Your task to perform on an android device: Open calendar and show me the first week of next month Image 0: 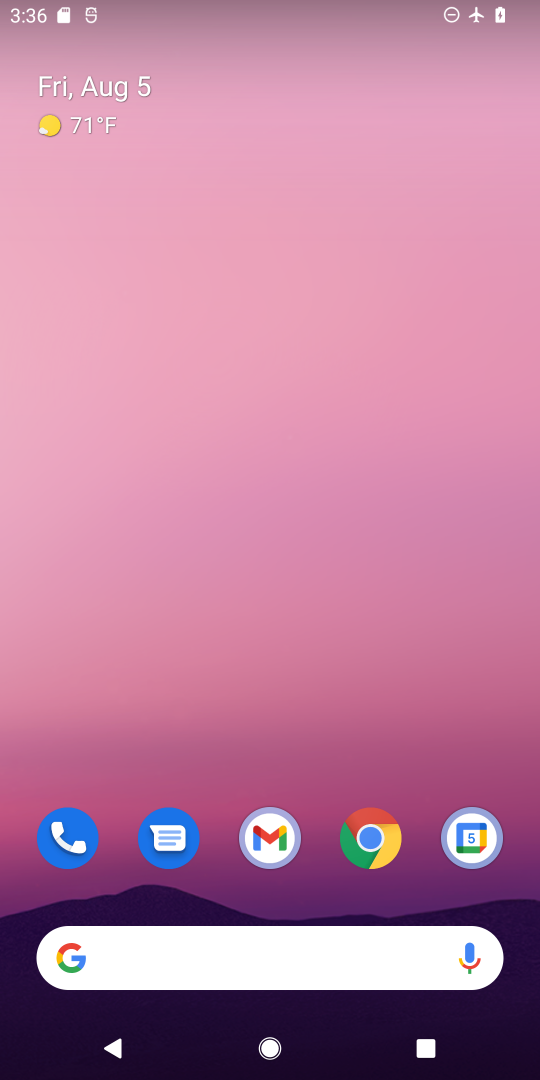
Step 0: click (464, 844)
Your task to perform on an android device: Open calendar and show me the first week of next month Image 1: 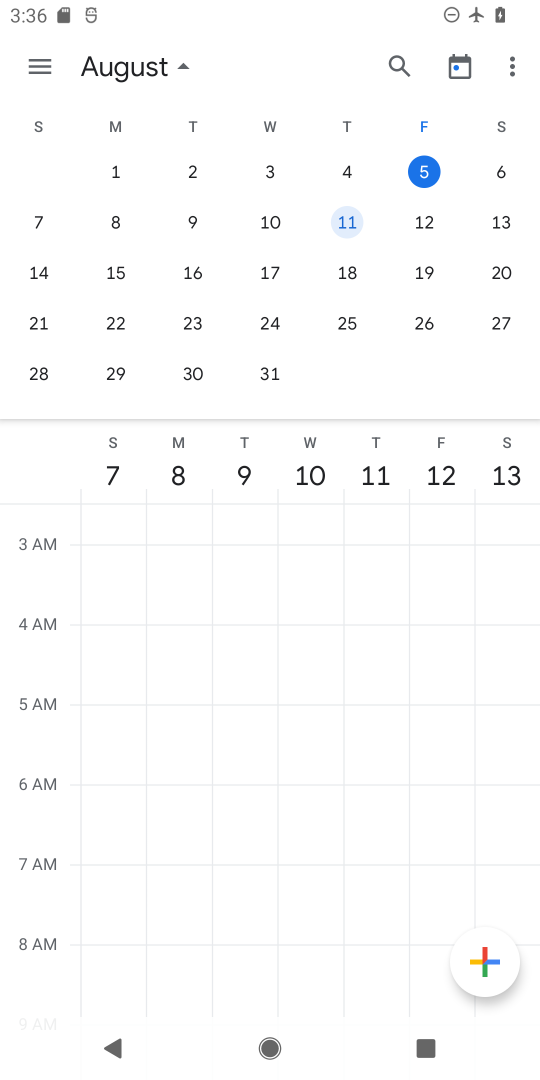
Step 1: click (46, 74)
Your task to perform on an android device: Open calendar and show me the first week of next month Image 2: 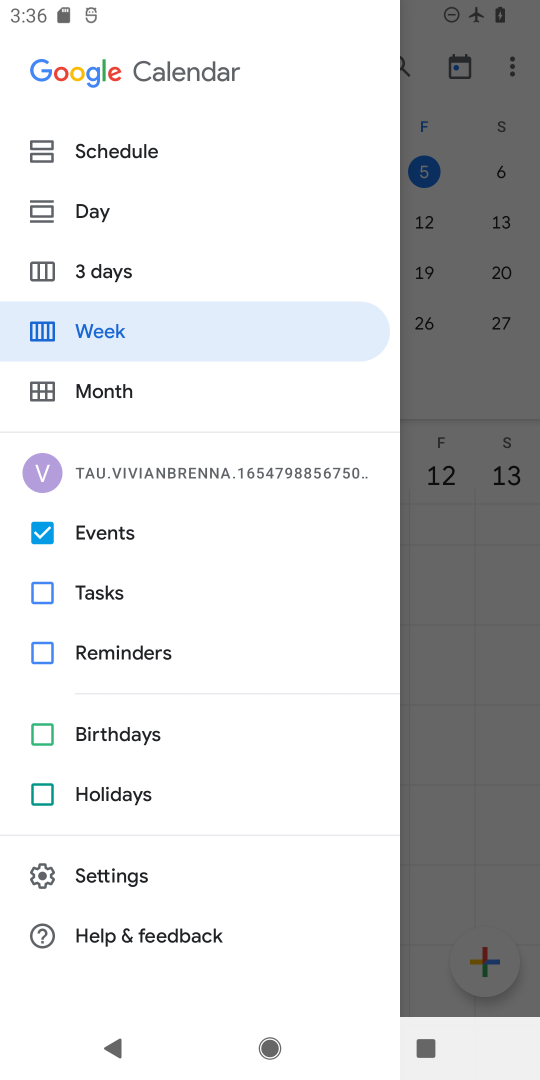
Step 2: click (141, 338)
Your task to perform on an android device: Open calendar and show me the first week of next month Image 3: 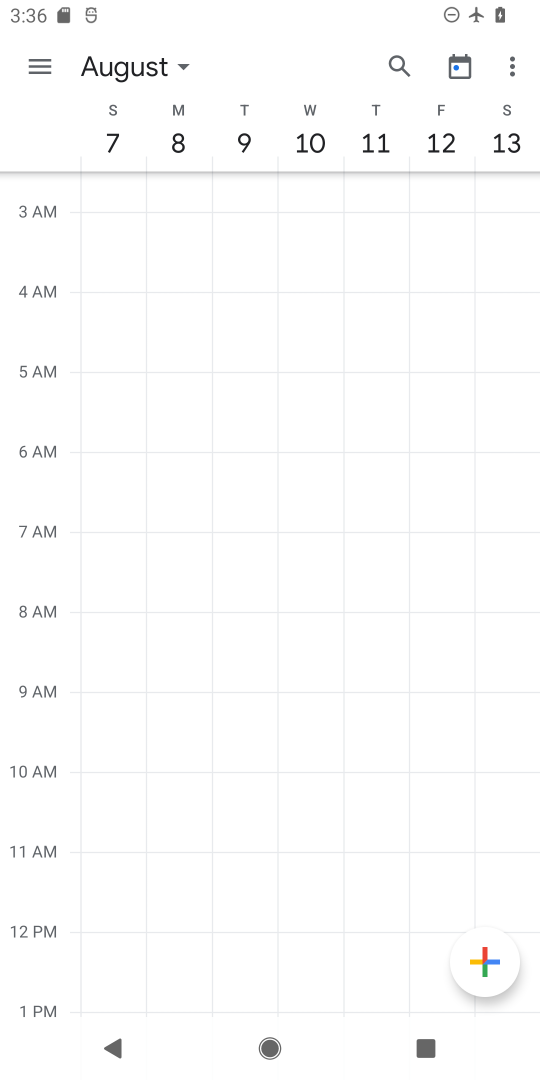
Step 3: click (157, 70)
Your task to perform on an android device: Open calendar and show me the first week of next month Image 4: 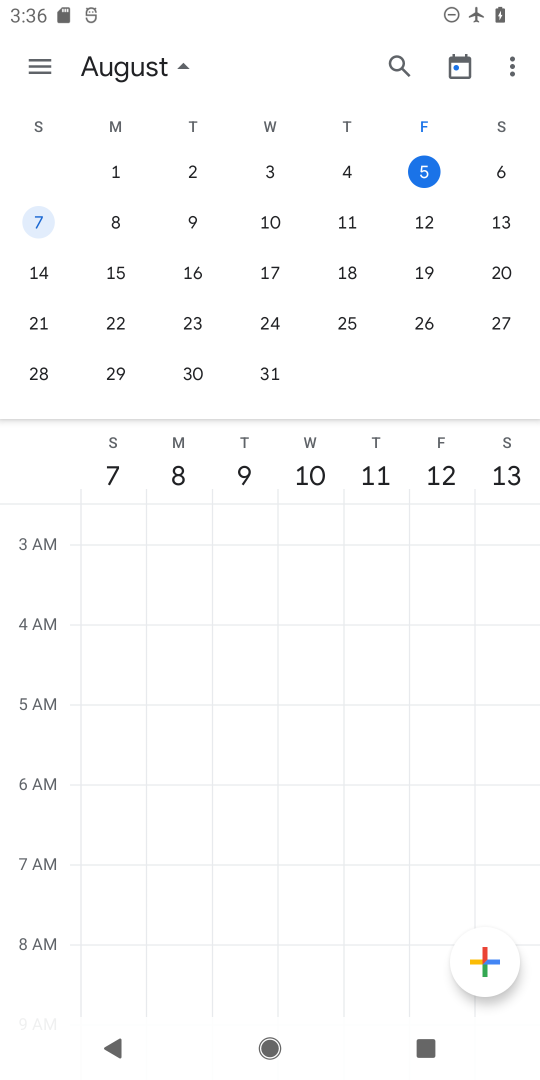
Step 4: drag from (530, 297) to (43, 308)
Your task to perform on an android device: Open calendar and show me the first week of next month Image 5: 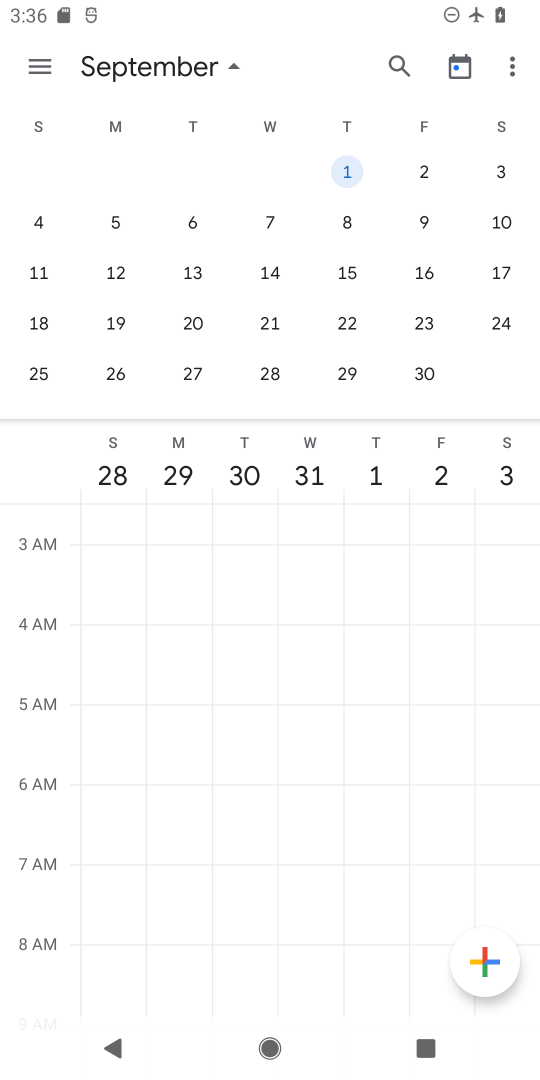
Step 5: click (257, 210)
Your task to perform on an android device: Open calendar and show me the first week of next month Image 6: 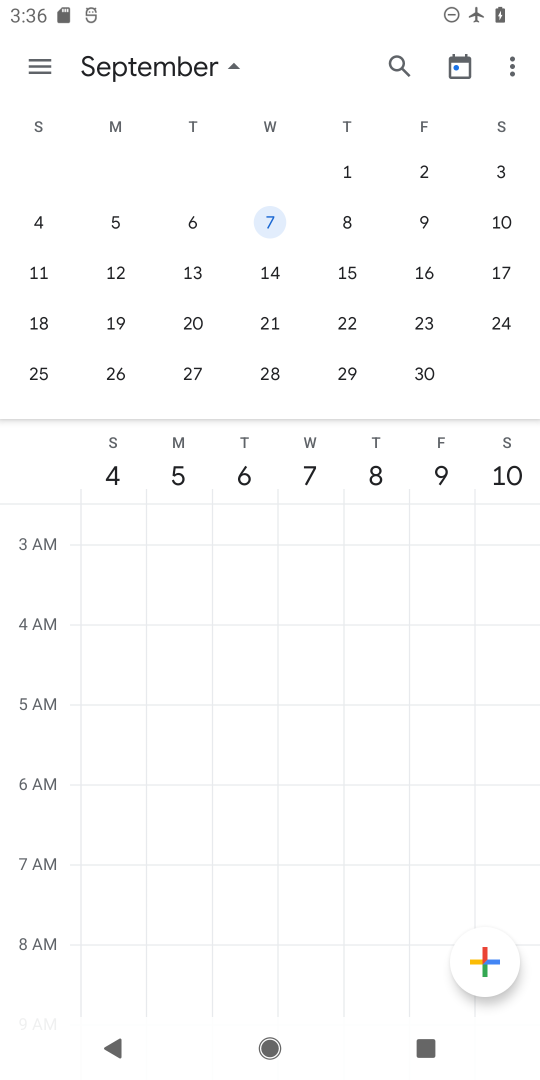
Step 6: task complete